Your task to perform on an android device: Is it going to rain tomorrow? Image 0: 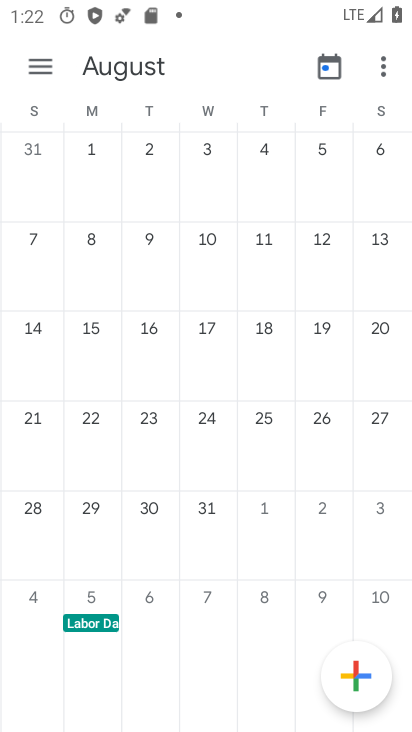
Step 0: press home button
Your task to perform on an android device: Is it going to rain tomorrow? Image 1: 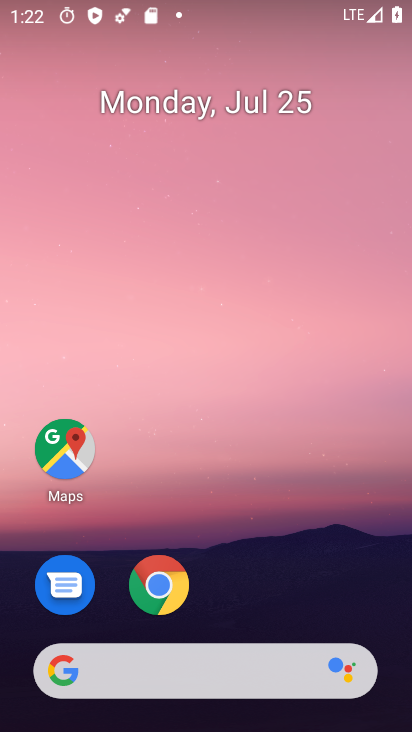
Step 1: drag from (184, 677) to (169, 103)
Your task to perform on an android device: Is it going to rain tomorrow? Image 2: 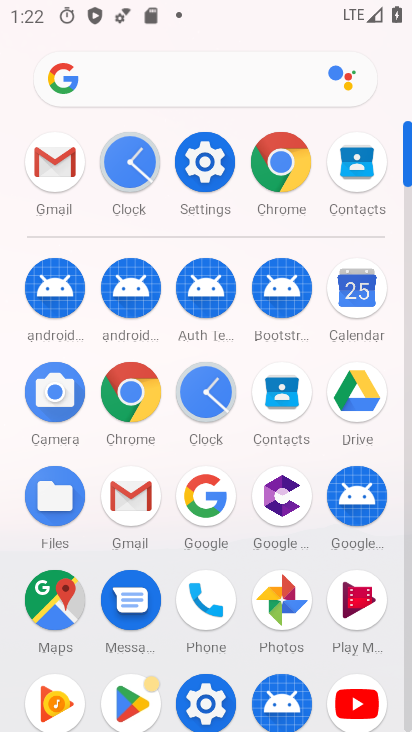
Step 2: click (137, 390)
Your task to perform on an android device: Is it going to rain tomorrow? Image 3: 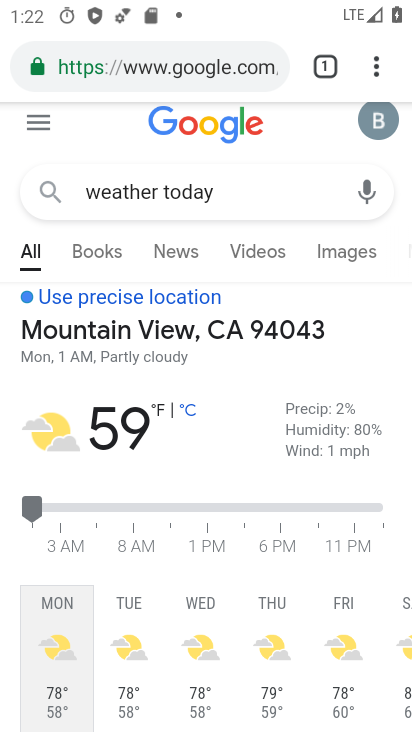
Step 3: click (208, 74)
Your task to perform on an android device: Is it going to rain tomorrow? Image 4: 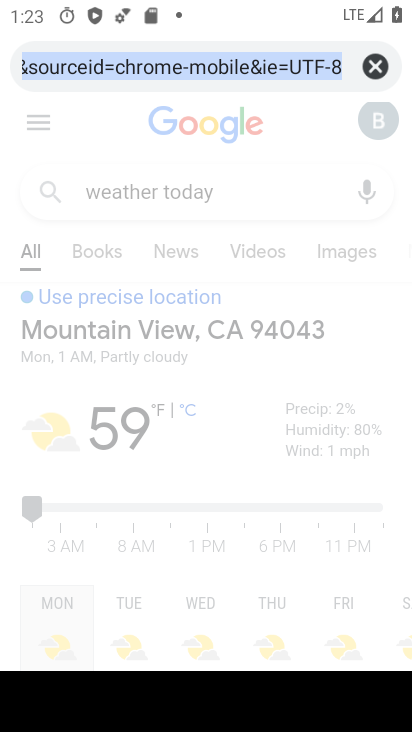
Step 4: type "weather tomorrow"
Your task to perform on an android device: Is it going to rain tomorrow? Image 5: 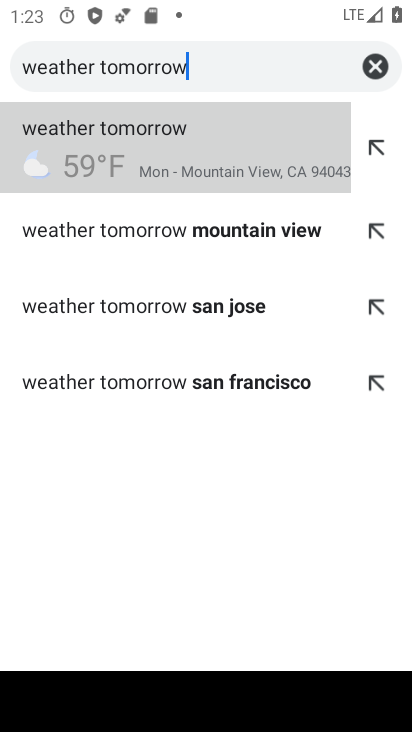
Step 5: click (142, 150)
Your task to perform on an android device: Is it going to rain tomorrow? Image 6: 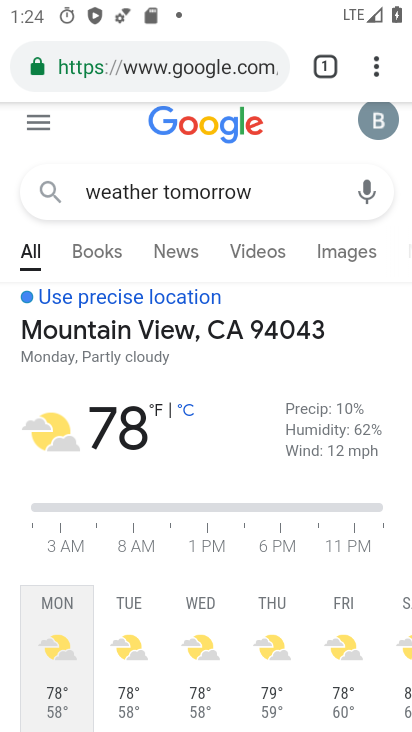
Step 6: task complete